Your task to perform on an android device: Go to accessibility settings Image 0: 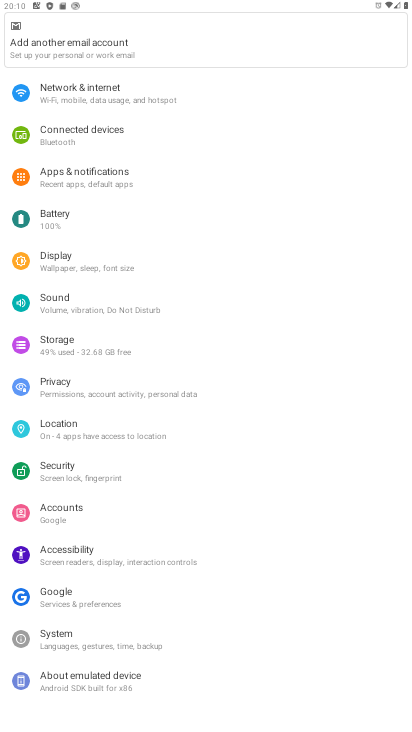
Step 0: click (98, 548)
Your task to perform on an android device: Go to accessibility settings Image 1: 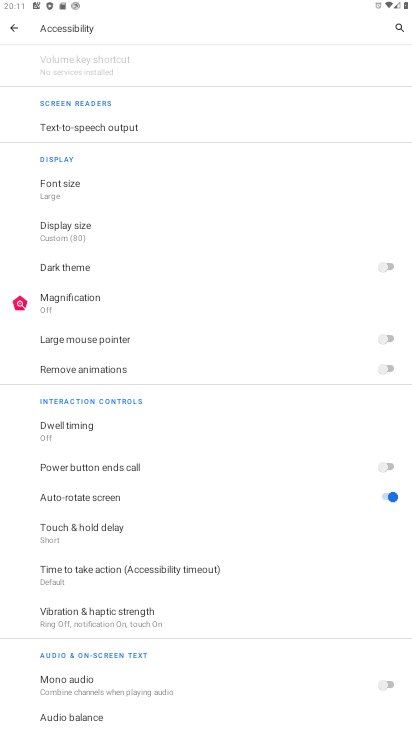
Step 1: task complete